Your task to perform on an android device: Open calendar and show me the fourth week of next month Image 0: 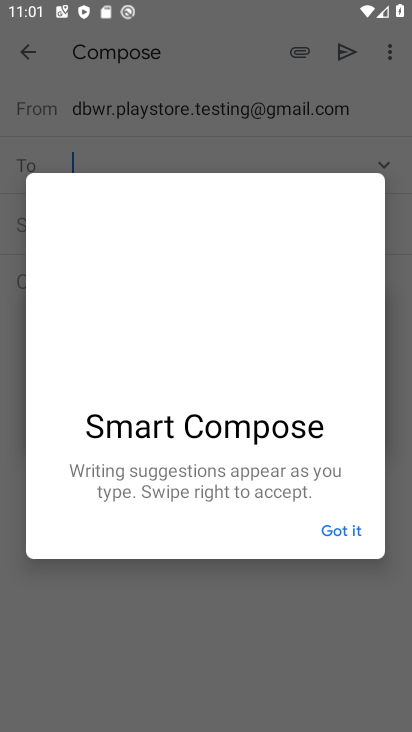
Step 0: task complete